Your task to perform on an android device: change keyboard looks Image 0: 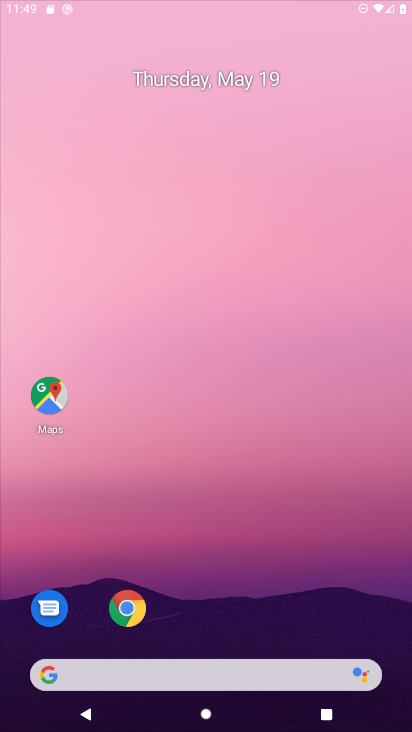
Step 0: press home button
Your task to perform on an android device: change keyboard looks Image 1: 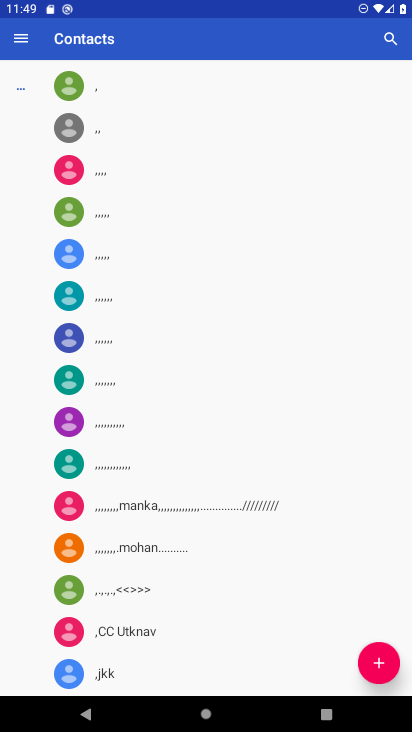
Step 1: drag from (249, 10) to (237, 138)
Your task to perform on an android device: change keyboard looks Image 2: 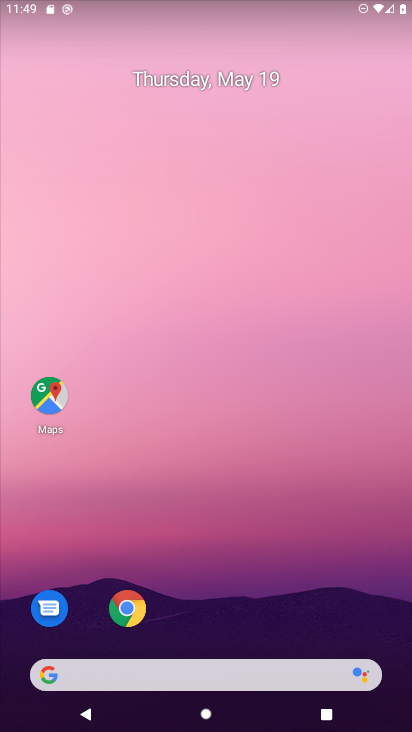
Step 2: drag from (306, 583) to (361, 3)
Your task to perform on an android device: change keyboard looks Image 3: 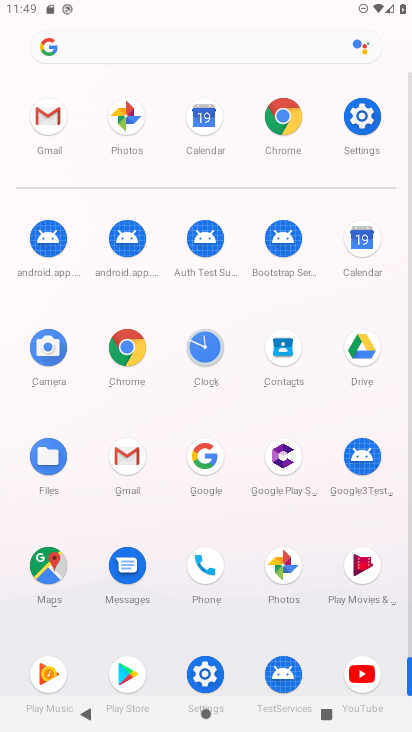
Step 3: click (367, 105)
Your task to perform on an android device: change keyboard looks Image 4: 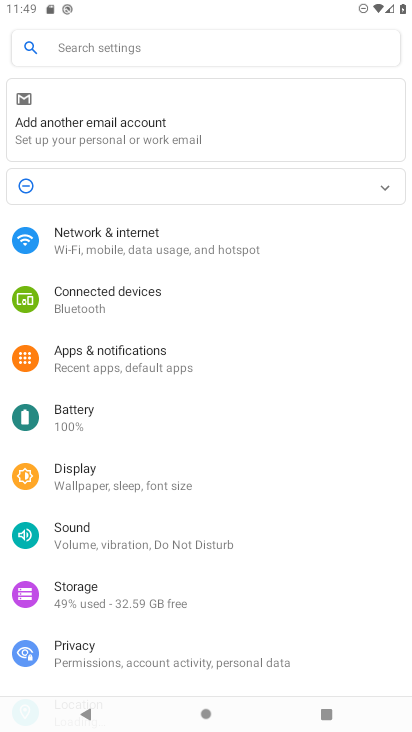
Step 4: drag from (196, 555) to (209, 0)
Your task to perform on an android device: change keyboard looks Image 5: 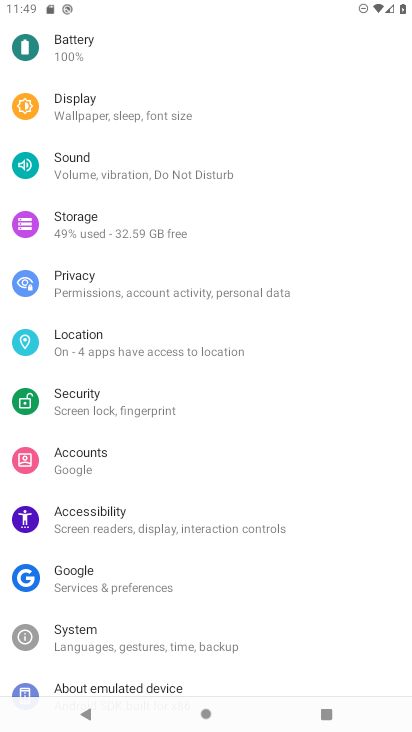
Step 5: click (141, 630)
Your task to perform on an android device: change keyboard looks Image 6: 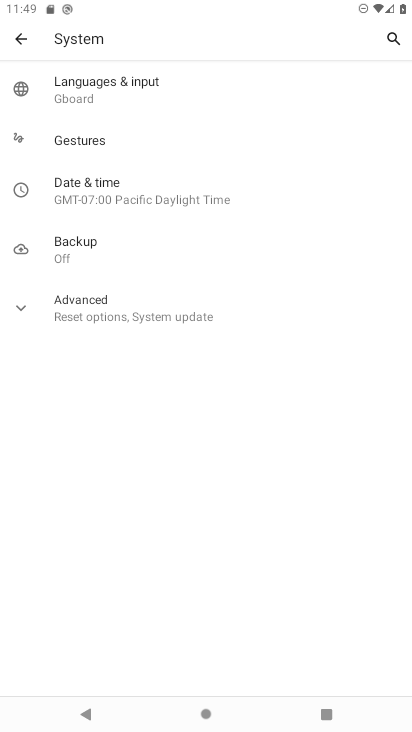
Step 6: click (145, 88)
Your task to perform on an android device: change keyboard looks Image 7: 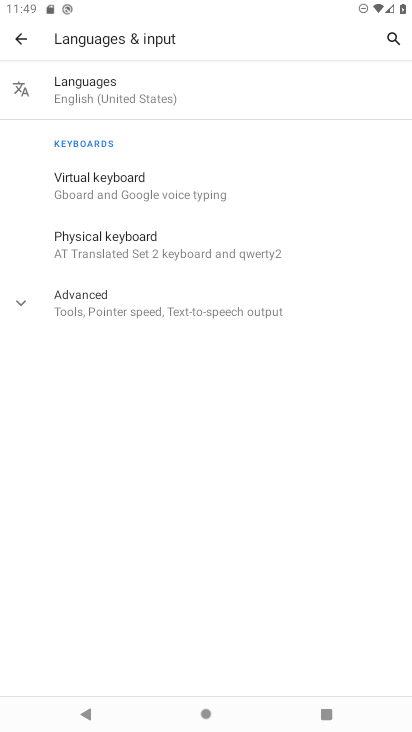
Step 7: click (150, 175)
Your task to perform on an android device: change keyboard looks Image 8: 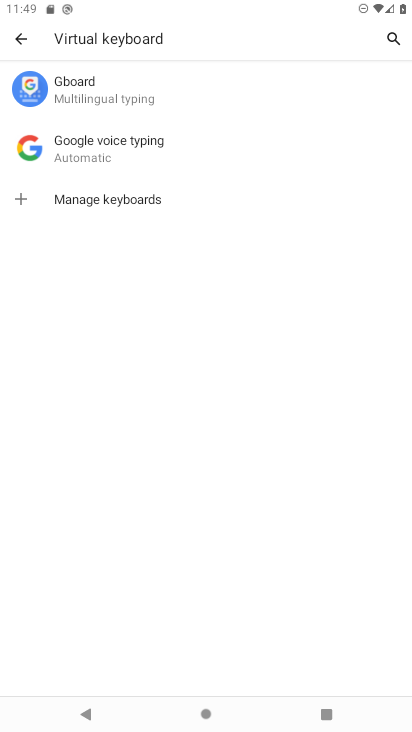
Step 8: click (115, 85)
Your task to perform on an android device: change keyboard looks Image 9: 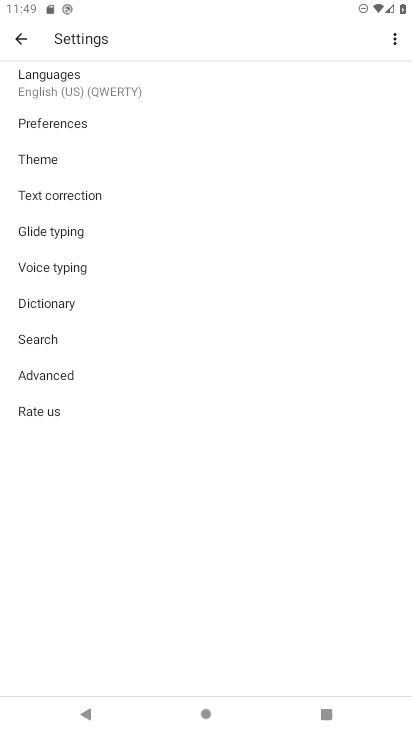
Step 9: click (131, 163)
Your task to perform on an android device: change keyboard looks Image 10: 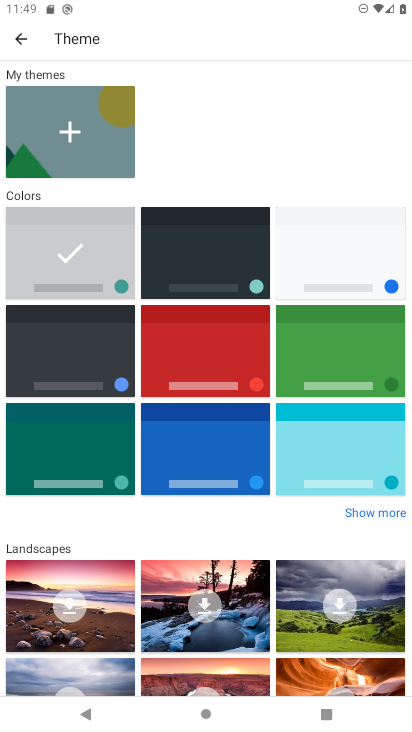
Step 10: click (193, 313)
Your task to perform on an android device: change keyboard looks Image 11: 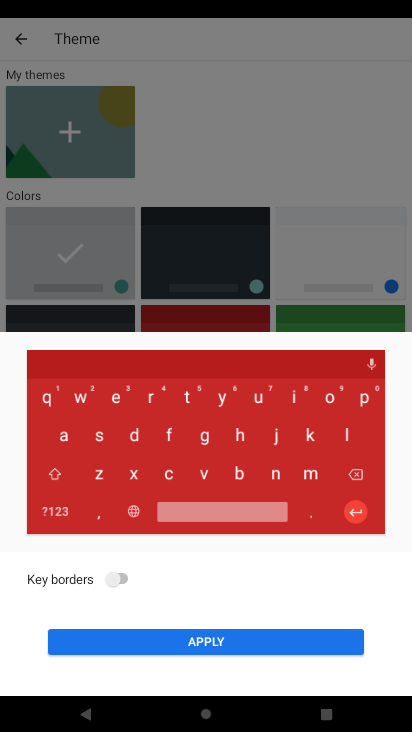
Step 11: click (199, 641)
Your task to perform on an android device: change keyboard looks Image 12: 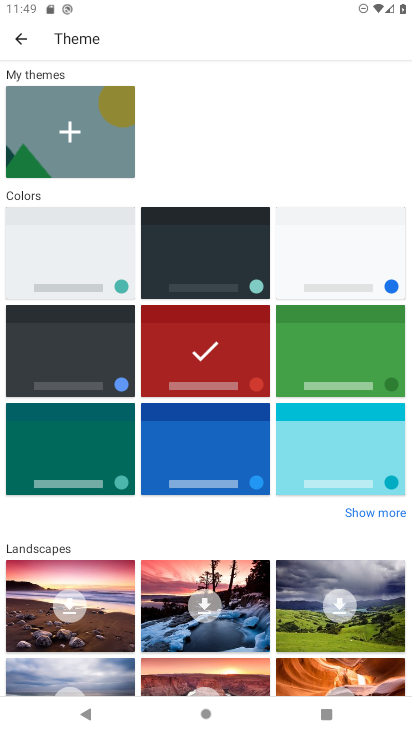
Step 12: task complete